Your task to perform on an android device: Go to privacy settings Image 0: 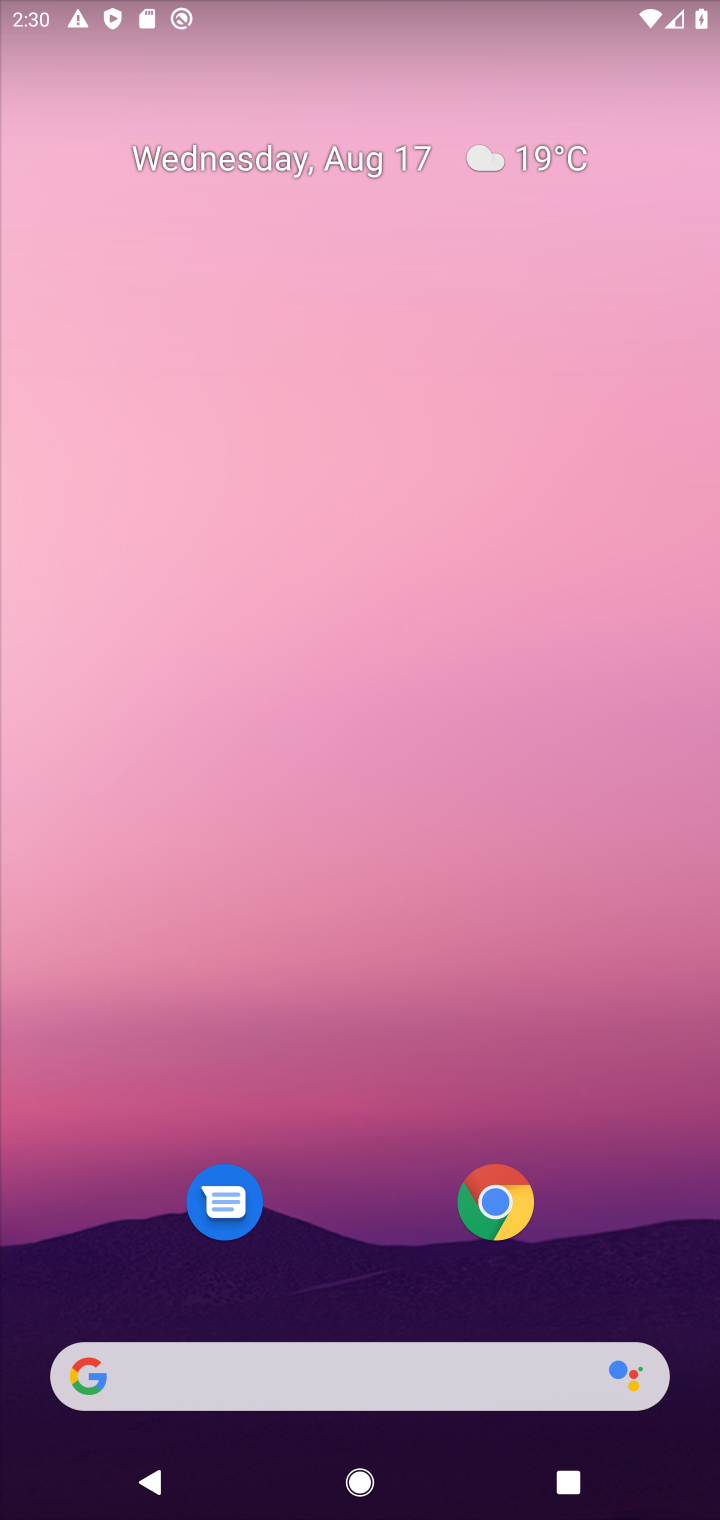
Step 0: drag from (373, 680) to (438, 98)
Your task to perform on an android device: Go to privacy settings Image 1: 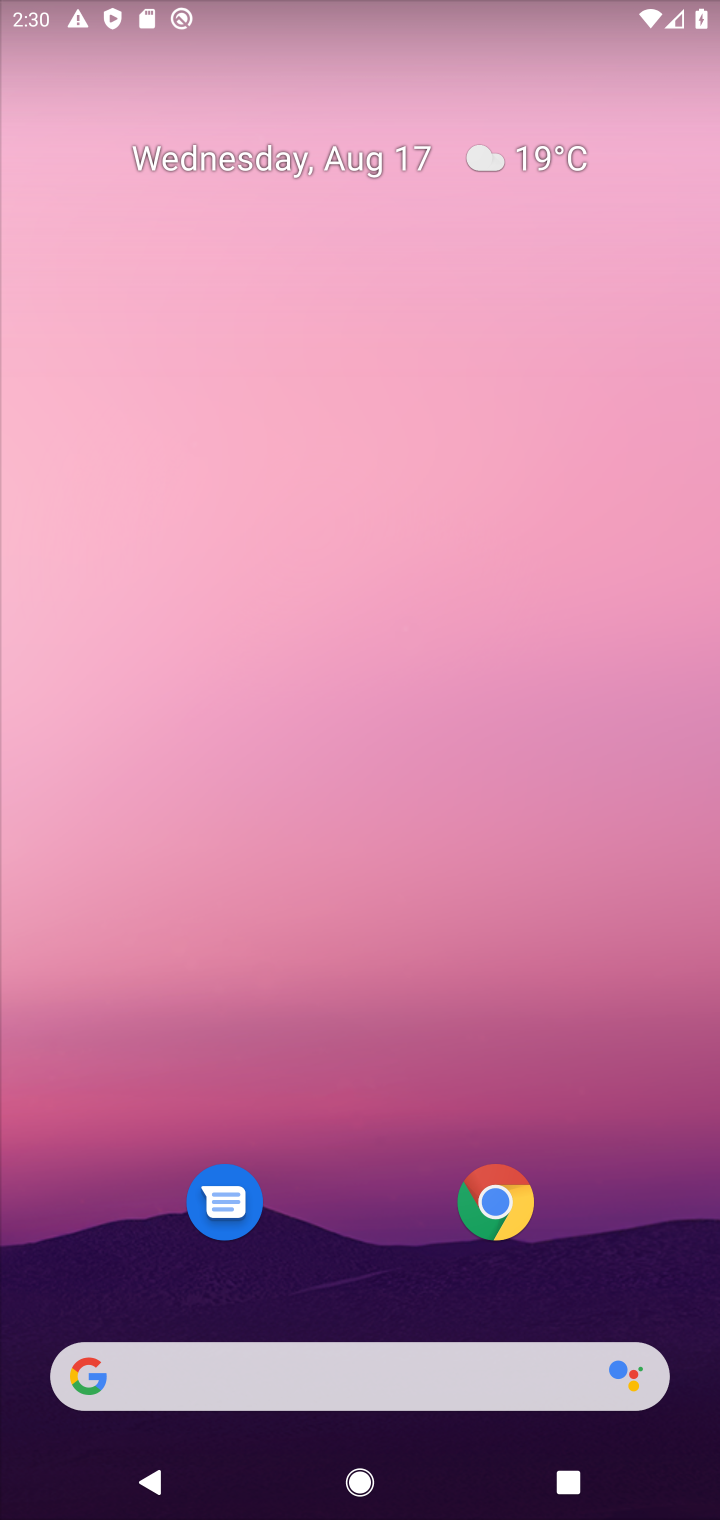
Step 1: drag from (316, 1248) to (324, 204)
Your task to perform on an android device: Go to privacy settings Image 2: 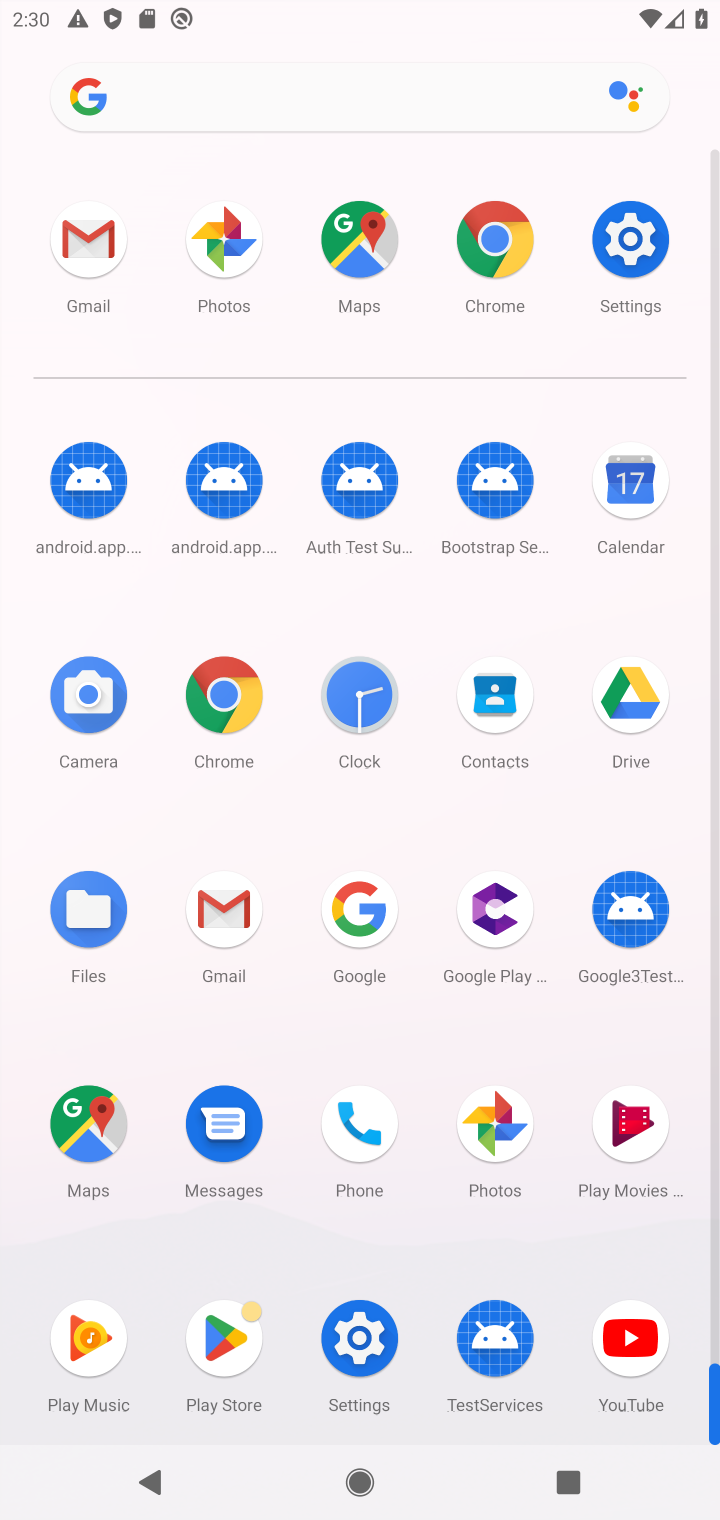
Step 2: click (320, 1315)
Your task to perform on an android device: Go to privacy settings Image 3: 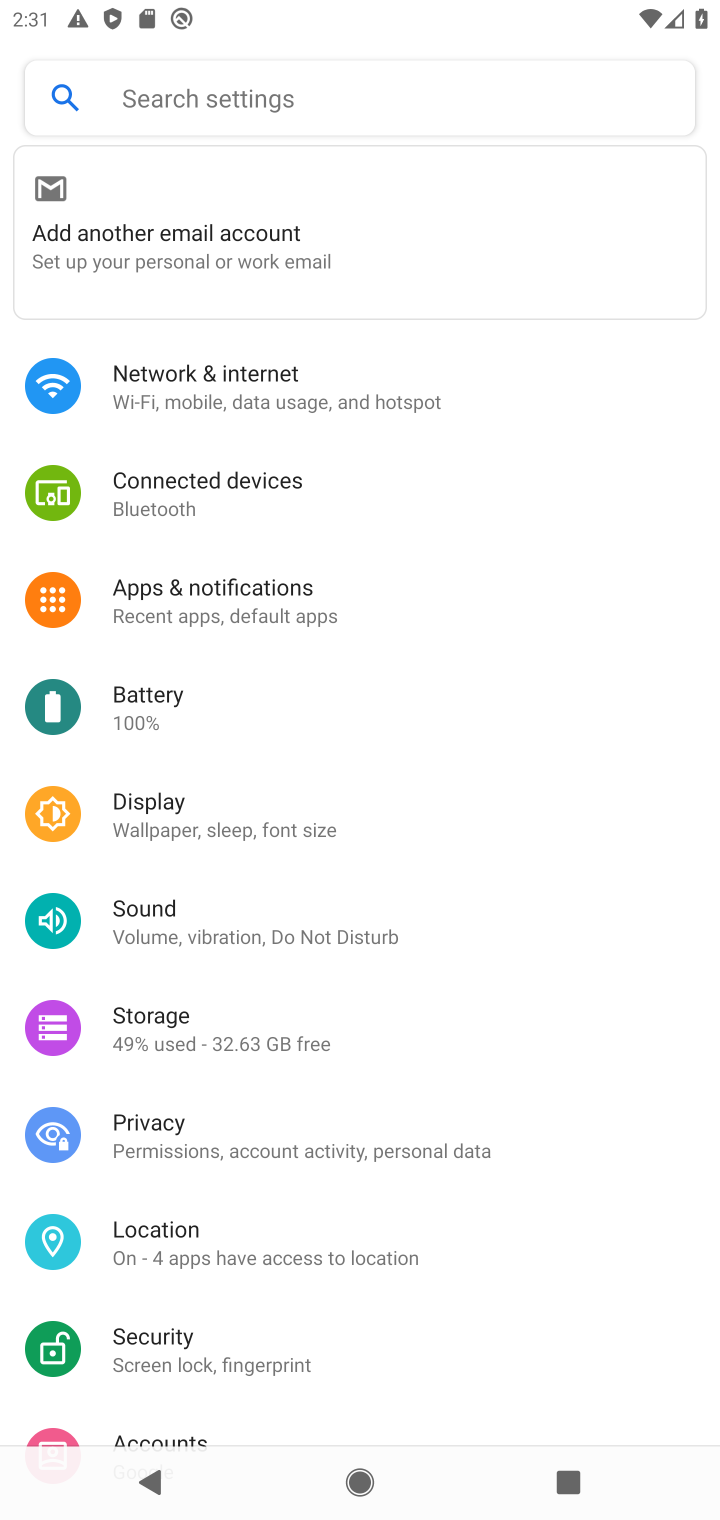
Step 3: click (243, 1129)
Your task to perform on an android device: Go to privacy settings Image 4: 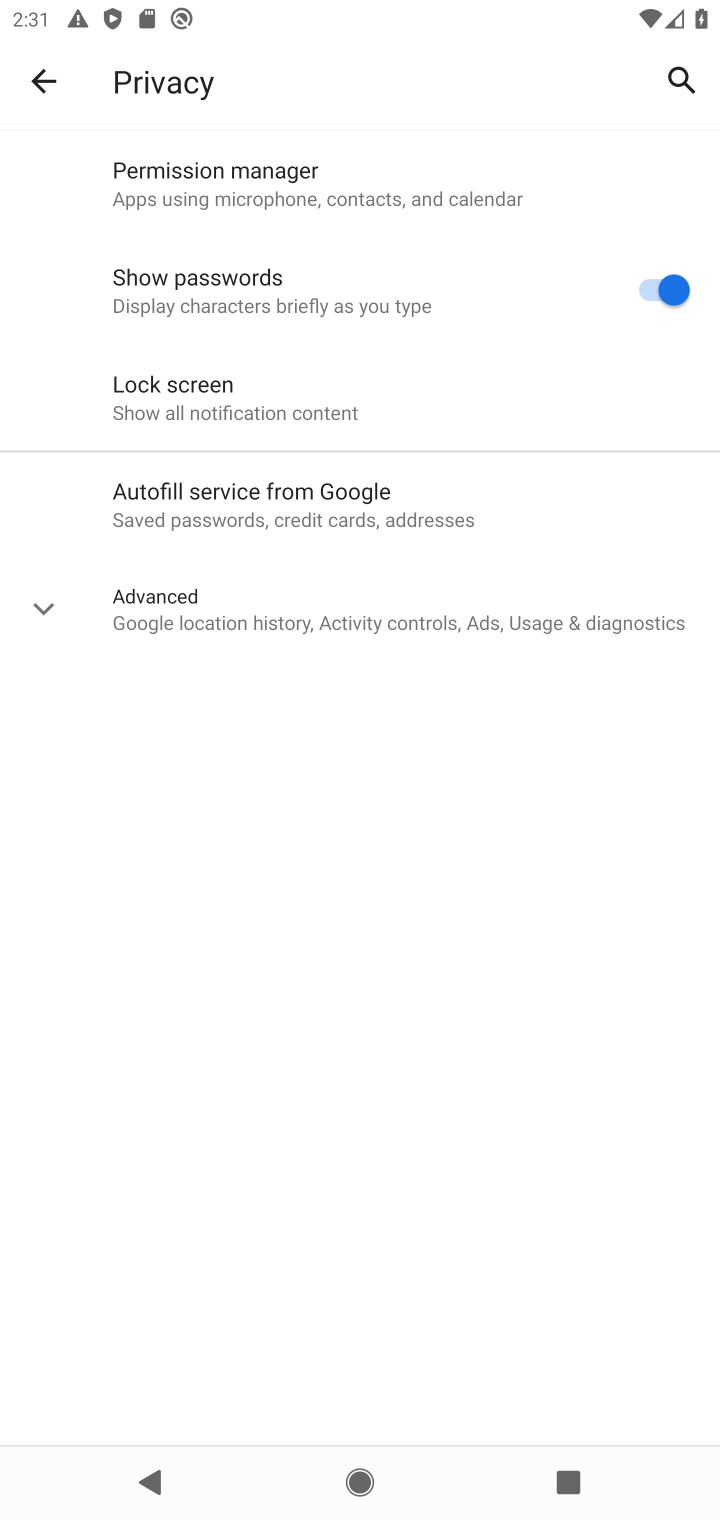
Step 4: task complete